Your task to perform on an android device: Open Youtube and go to the subscriptions tab Image 0: 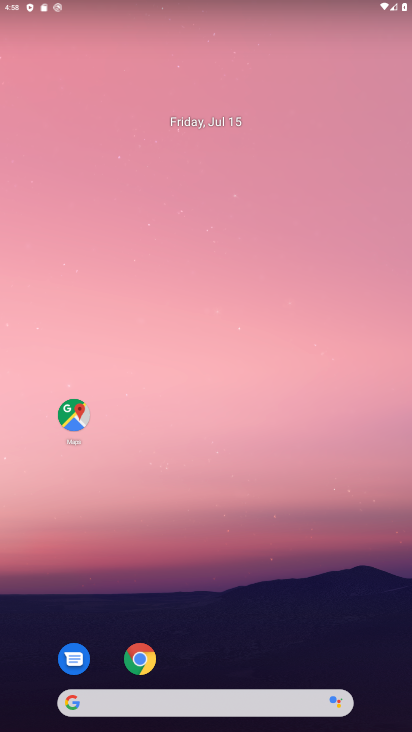
Step 0: press home button
Your task to perform on an android device: Open Youtube and go to the subscriptions tab Image 1: 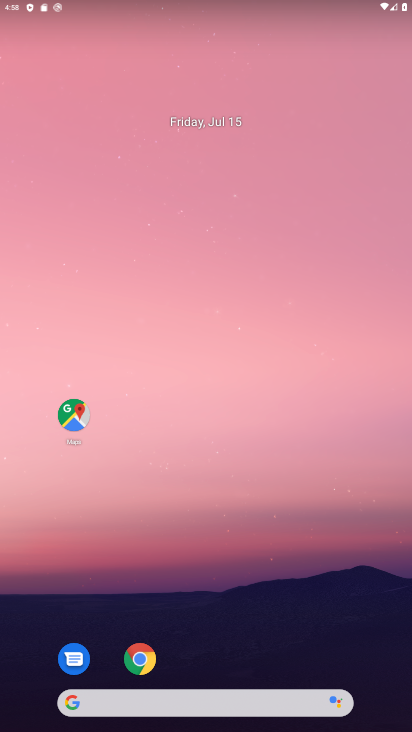
Step 1: drag from (210, 637) to (339, 14)
Your task to perform on an android device: Open Youtube and go to the subscriptions tab Image 2: 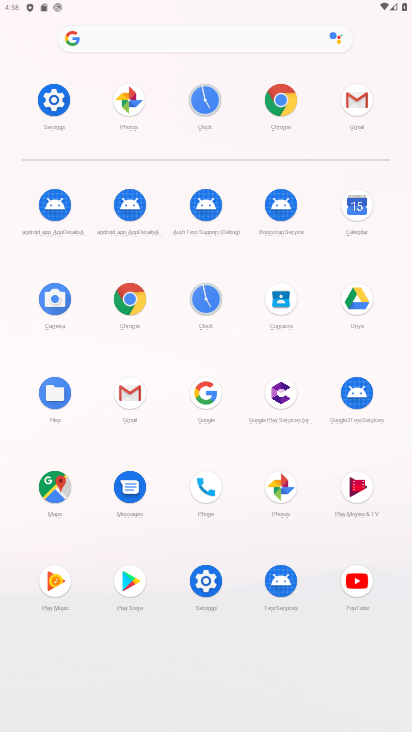
Step 2: click (354, 582)
Your task to perform on an android device: Open Youtube and go to the subscriptions tab Image 3: 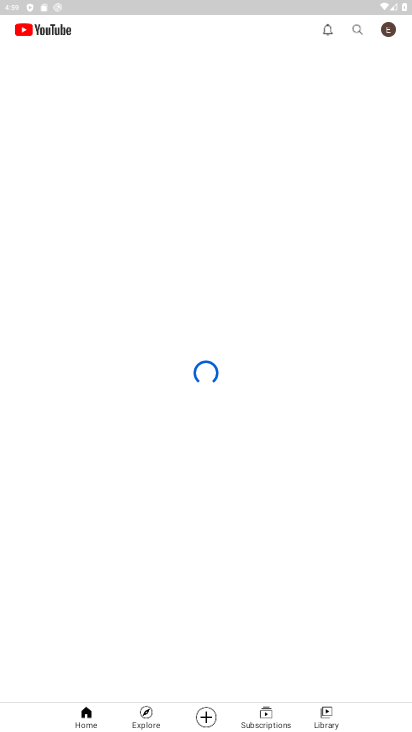
Step 3: click (250, 715)
Your task to perform on an android device: Open Youtube and go to the subscriptions tab Image 4: 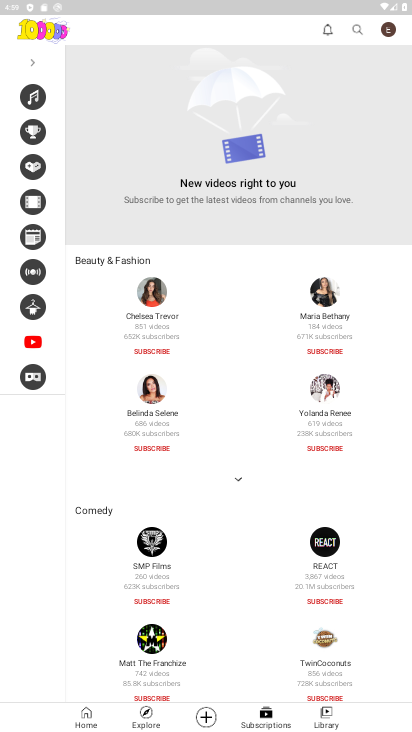
Step 4: task complete